Your task to perform on an android device: install app "YouTube Kids" Image 0: 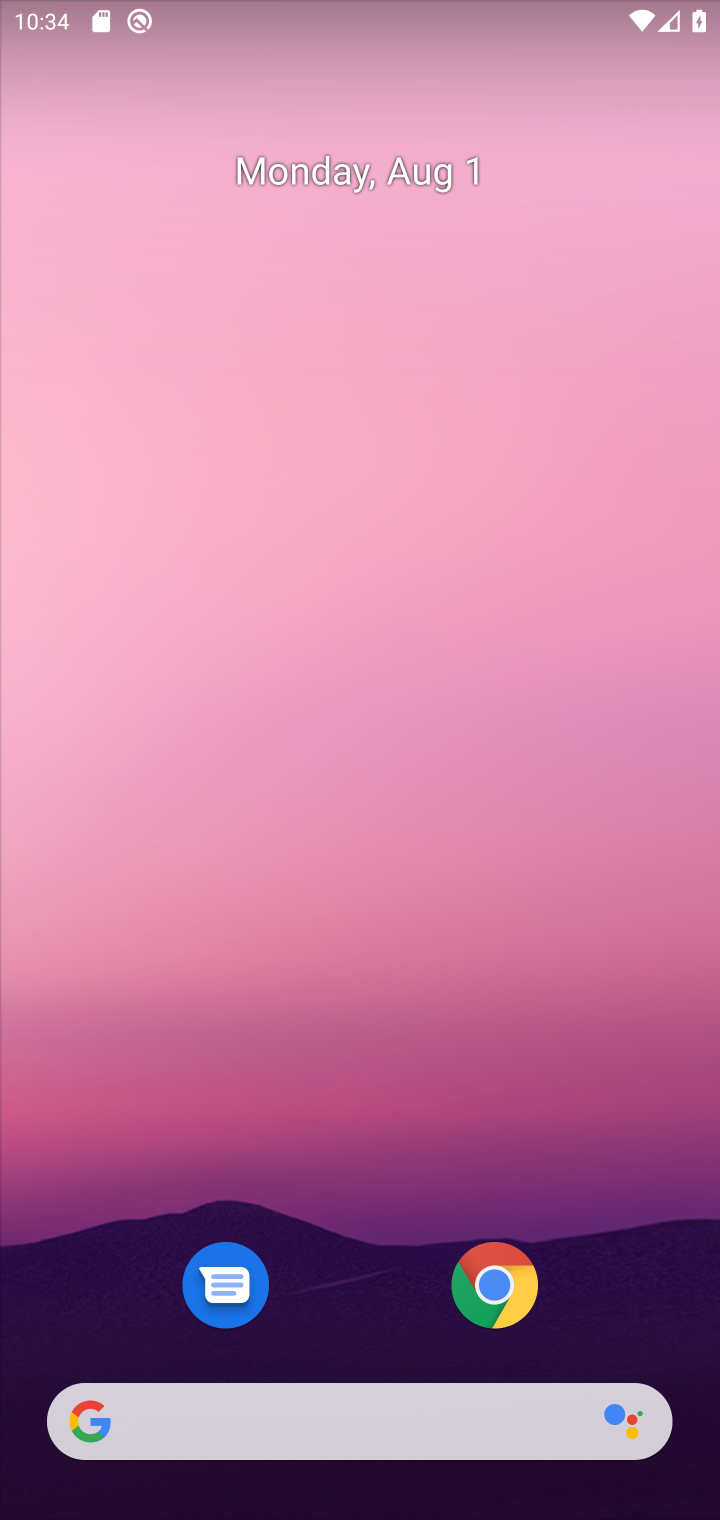
Step 0: drag from (231, 1131) to (231, 208)
Your task to perform on an android device: install app "YouTube Kids" Image 1: 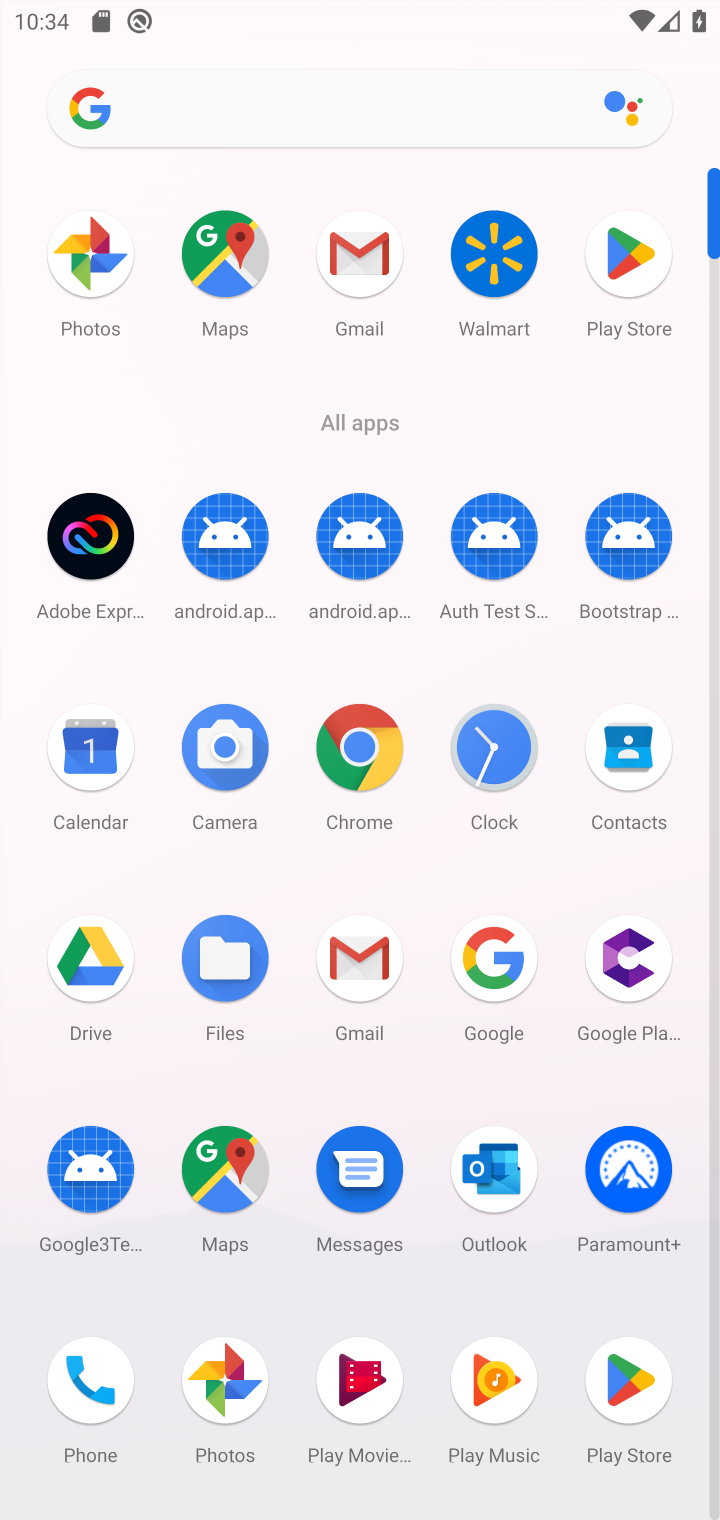
Step 1: click (610, 1380)
Your task to perform on an android device: install app "YouTube Kids" Image 2: 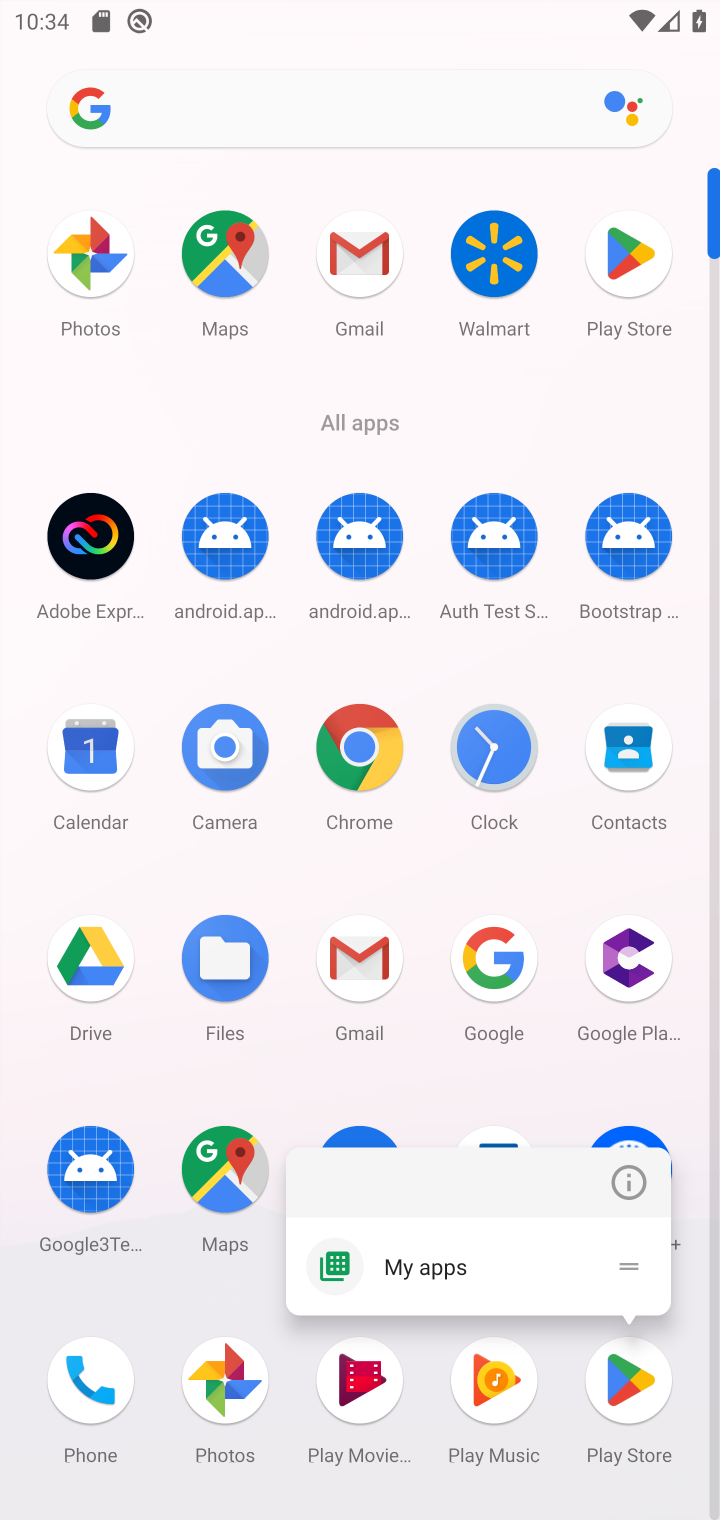
Step 2: click (640, 1387)
Your task to perform on an android device: install app "YouTube Kids" Image 3: 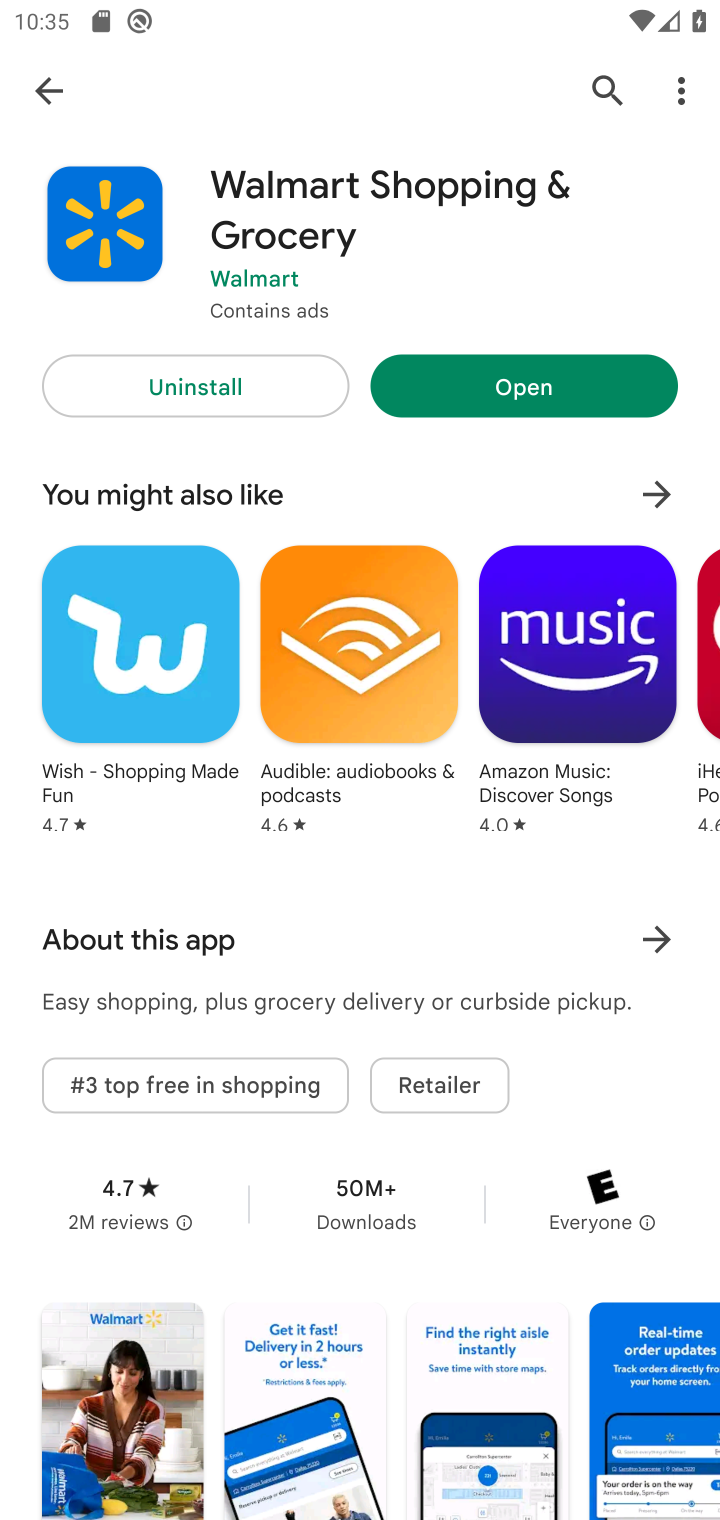
Step 3: click (41, 98)
Your task to perform on an android device: install app "YouTube Kids" Image 4: 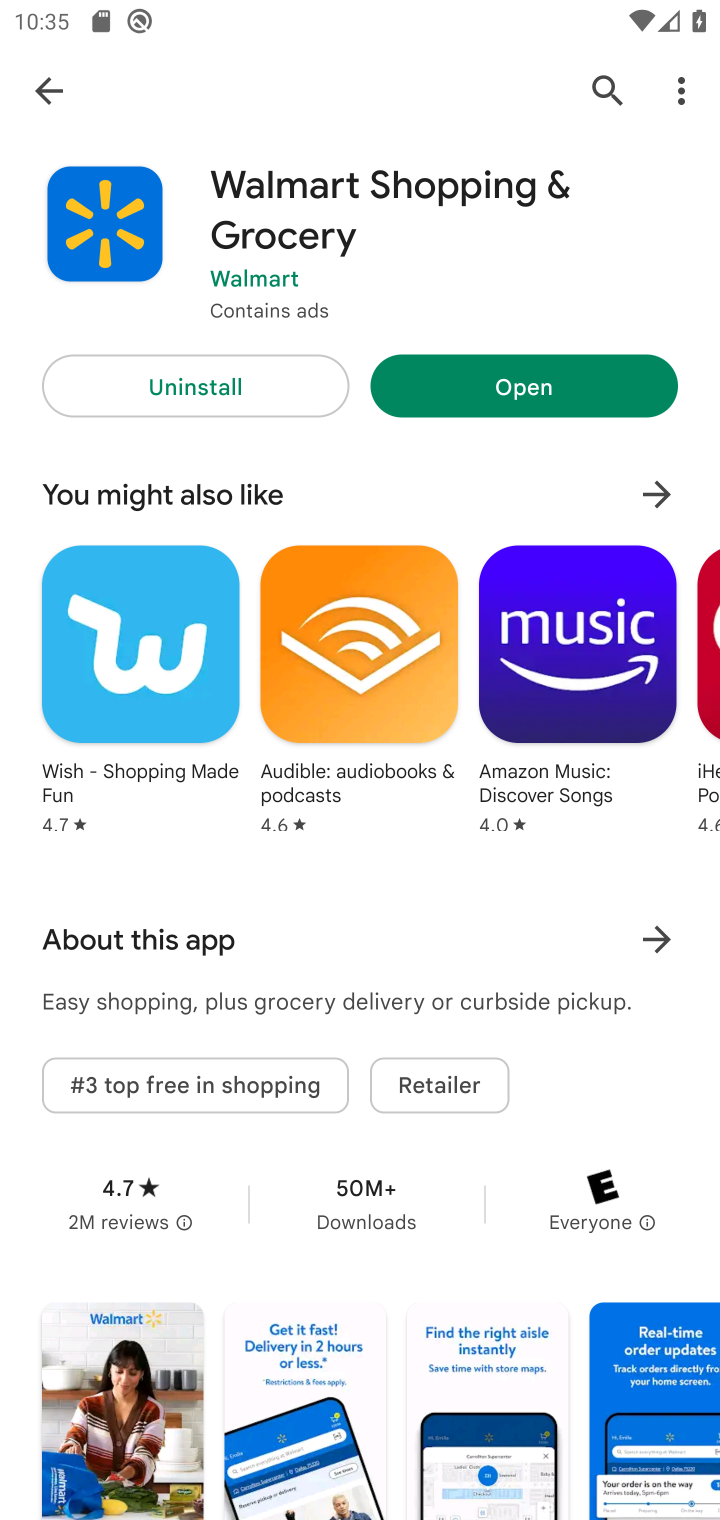
Step 4: click (616, 82)
Your task to perform on an android device: install app "YouTube Kids" Image 5: 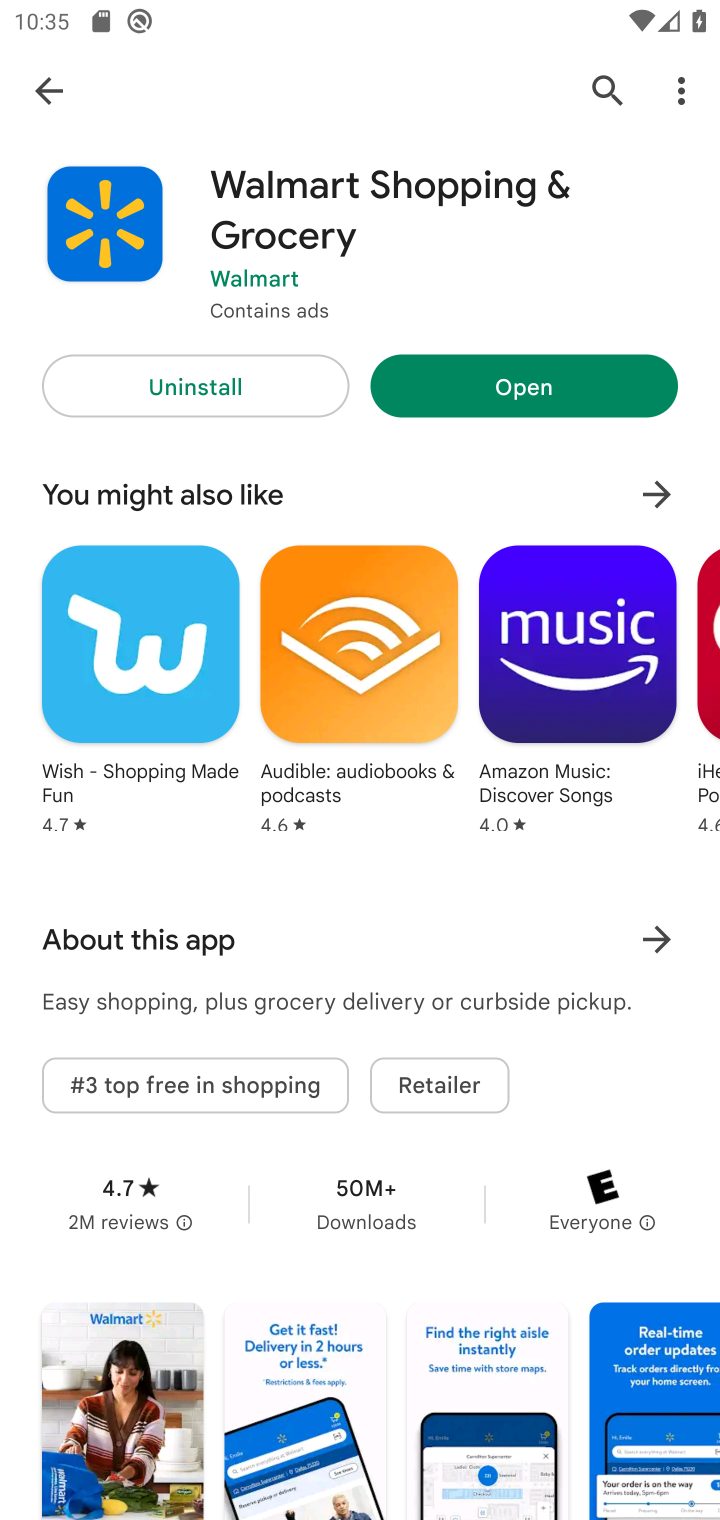
Step 5: click (601, 85)
Your task to perform on an android device: install app "YouTube Kids" Image 6: 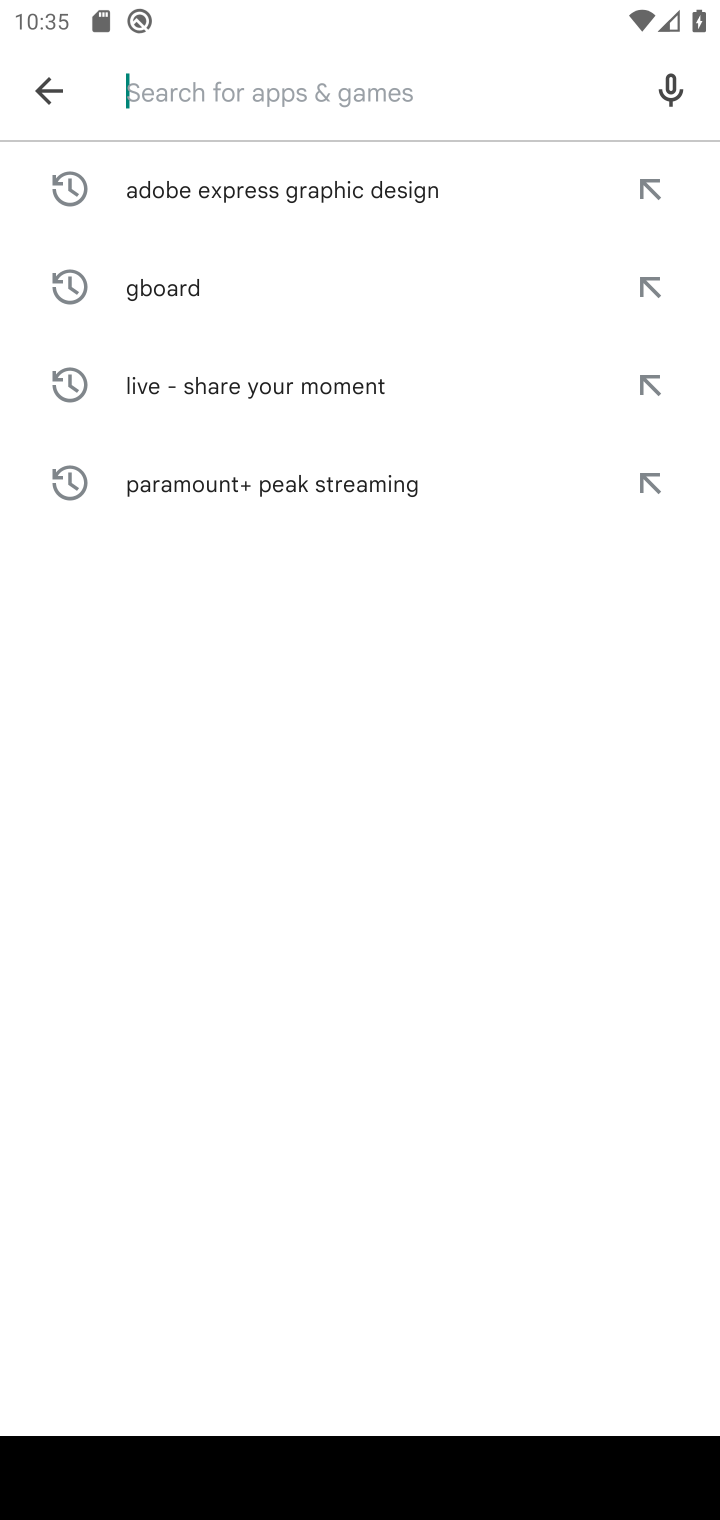
Step 6: type "YouTube Kids"
Your task to perform on an android device: install app "YouTube Kids" Image 7: 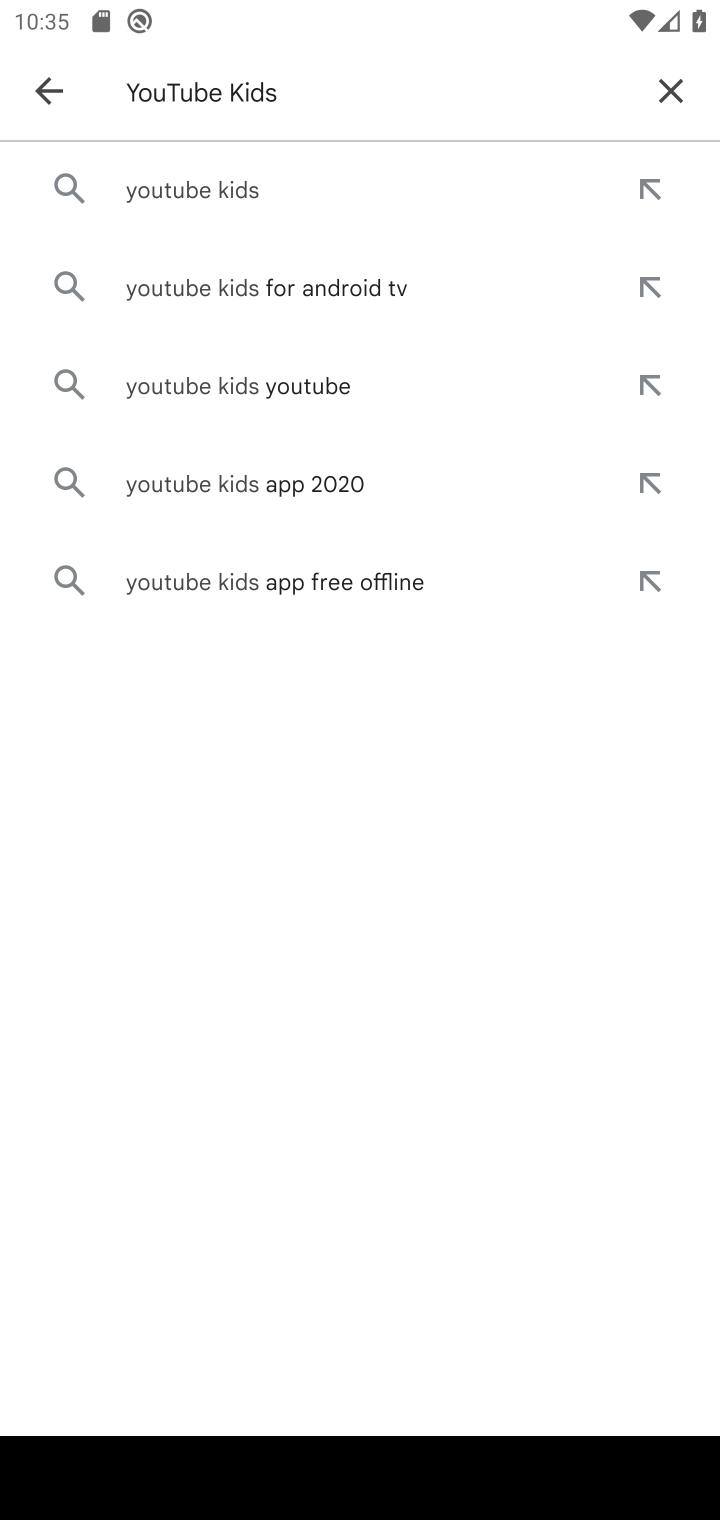
Step 7: click (256, 180)
Your task to perform on an android device: install app "YouTube Kids" Image 8: 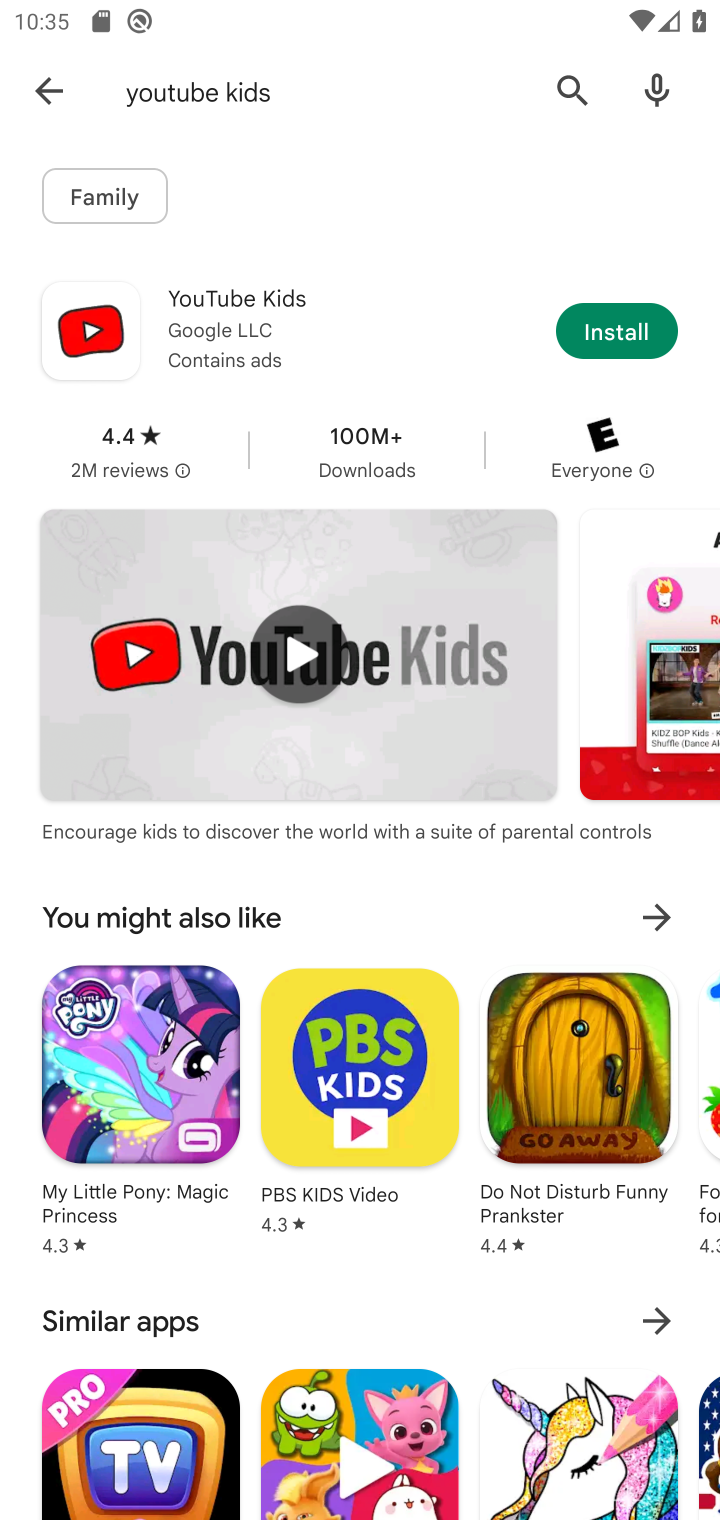
Step 8: click (651, 332)
Your task to perform on an android device: install app "YouTube Kids" Image 9: 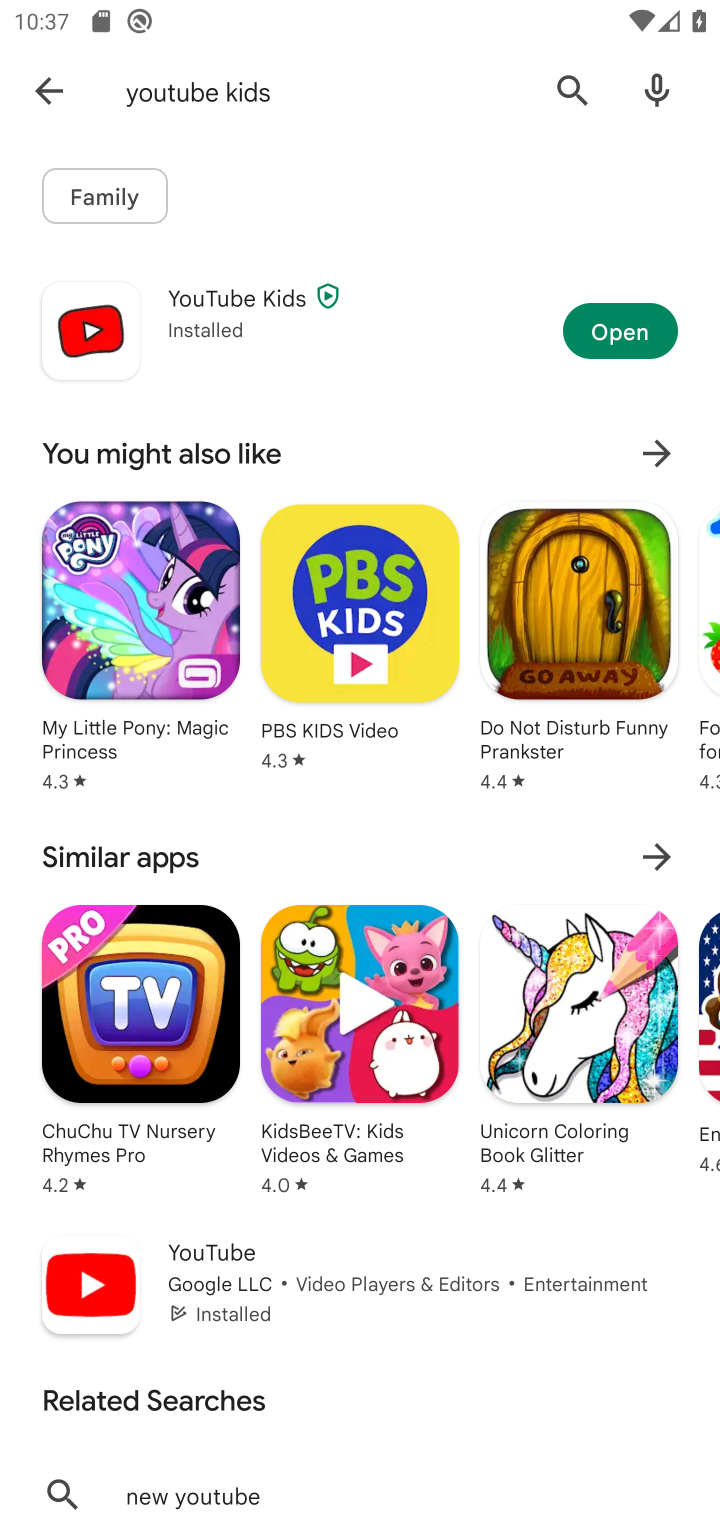
Step 9: click (635, 318)
Your task to perform on an android device: install app "YouTube Kids" Image 10: 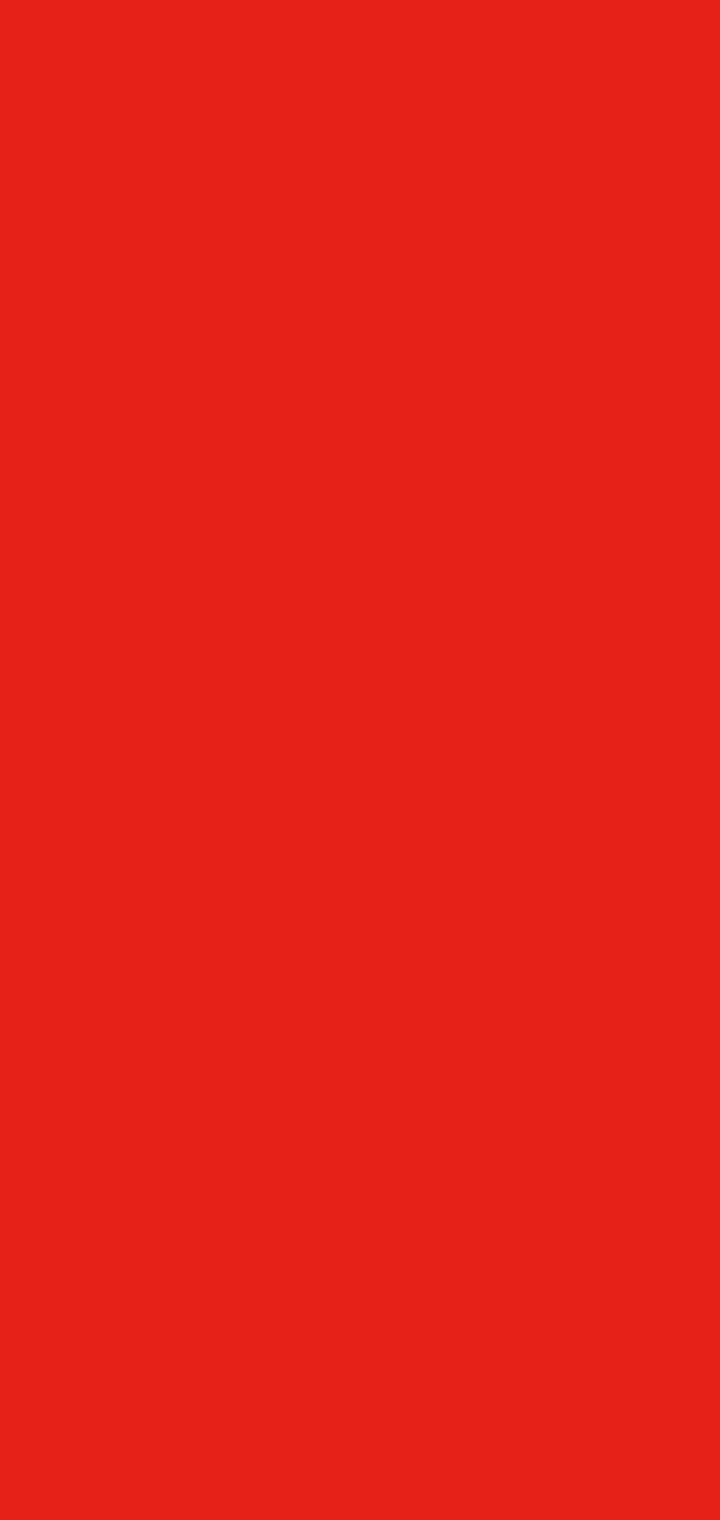
Step 10: task complete